Your task to perform on an android device: Search for Italian restaurants on Maps Image 0: 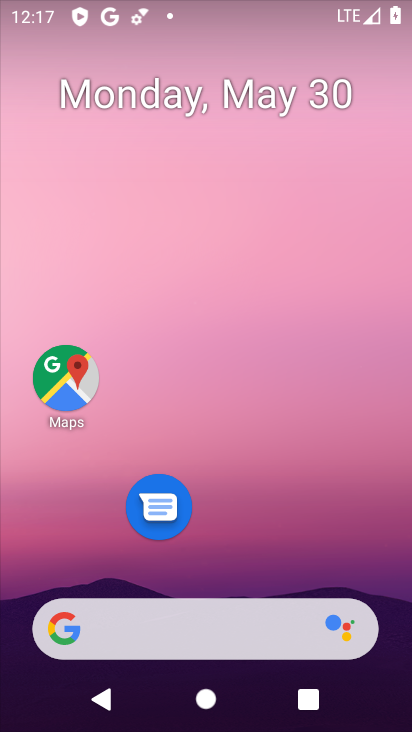
Step 0: drag from (287, 571) to (279, 93)
Your task to perform on an android device: Search for Italian restaurants on Maps Image 1: 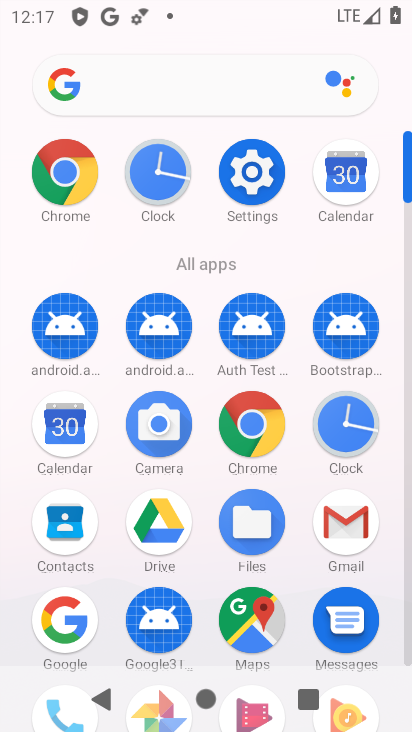
Step 1: click (239, 602)
Your task to perform on an android device: Search for Italian restaurants on Maps Image 2: 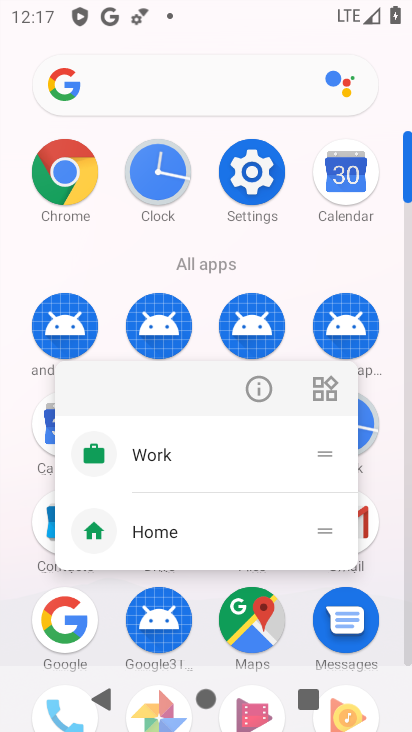
Step 2: click (252, 629)
Your task to perform on an android device: Search for Italian restaurants on Maps Image 3: 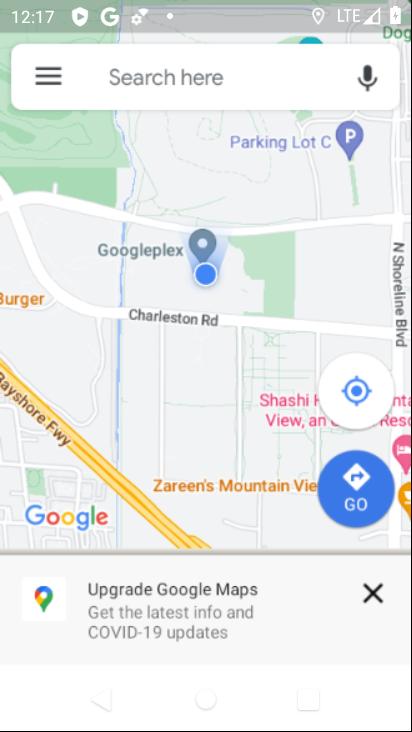
Step 3: click (211, 79)
Your task to perform on an android device: Search for Italian restaurants on Maps Image 4: 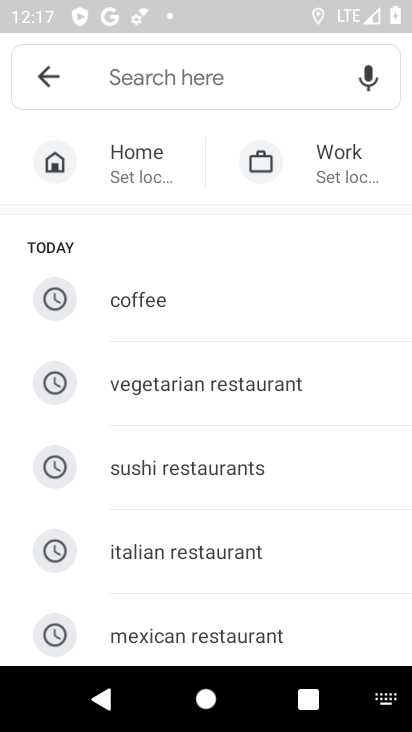
Step 4: type " Italian restaurants"
Your task to perform on an android device: Search for Italian restaurants on Maps Image 5: 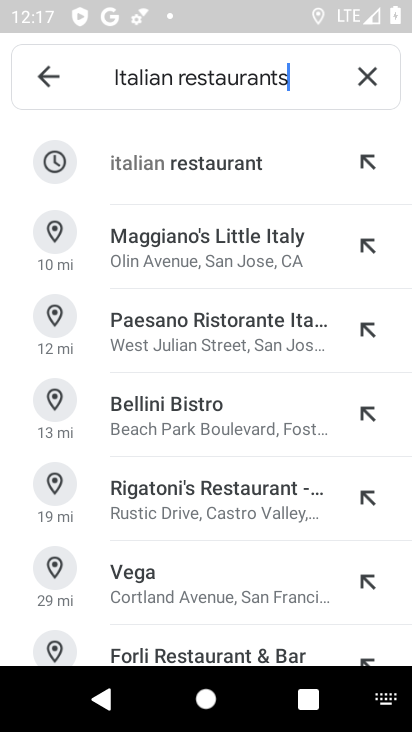
Step 5: click (196, 162)
Your task to perform on an android device: Search for Italian restaurants on Maps Image 6: 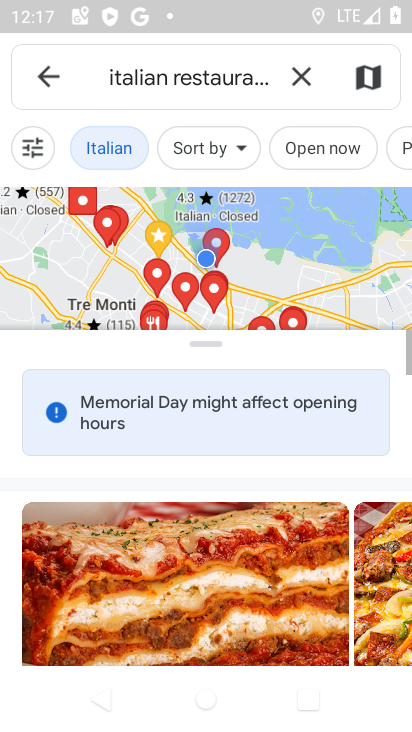
Step 6: task complete